Your task to perform on an android device: toggle pop-ups in chrome Image 0: 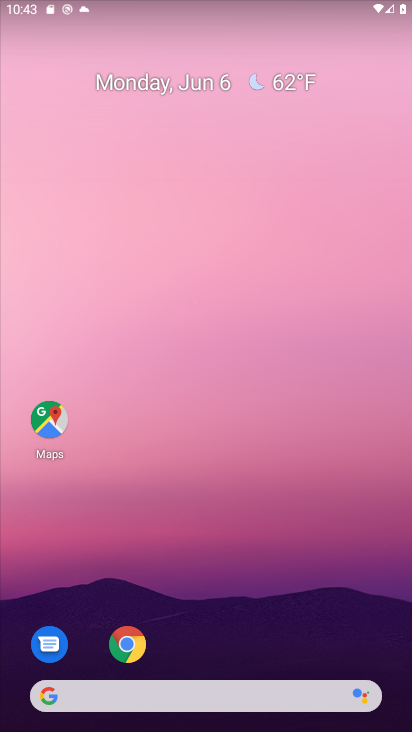
Step 0: click (130, 650)
Your task to perform on an android device: toggle pop-ups in chrome Image 1: 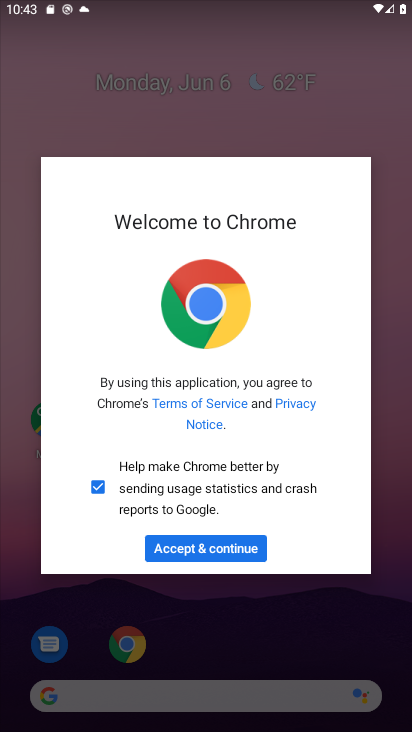
Step 1: click (209, 547)
Your task to perform on an android device: toggle pop-ups in chrome Image 2: 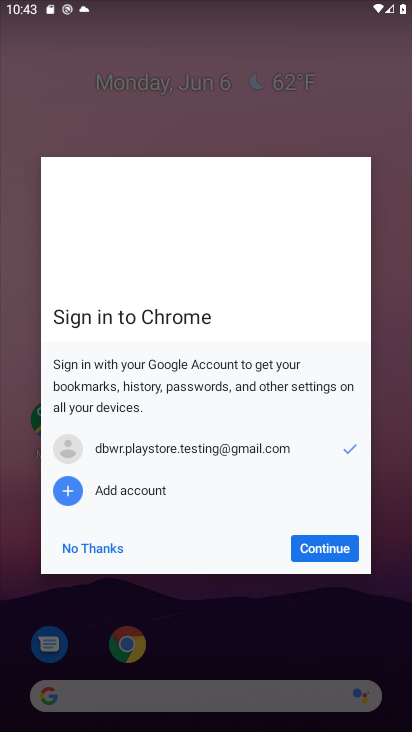
Step 2: click (312, 551)
Your task to perform on an android device: toggle pop-ups in chrome Image 3: 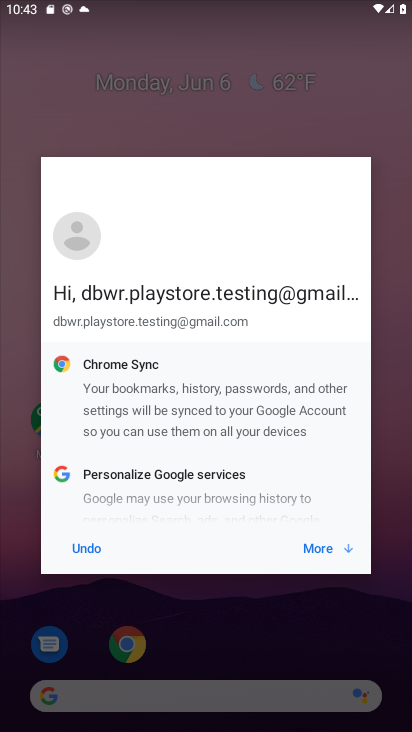
Step 3: click (312, 551)
Your task to perform on an android device: toggle pop-ups in chrome Image 4: 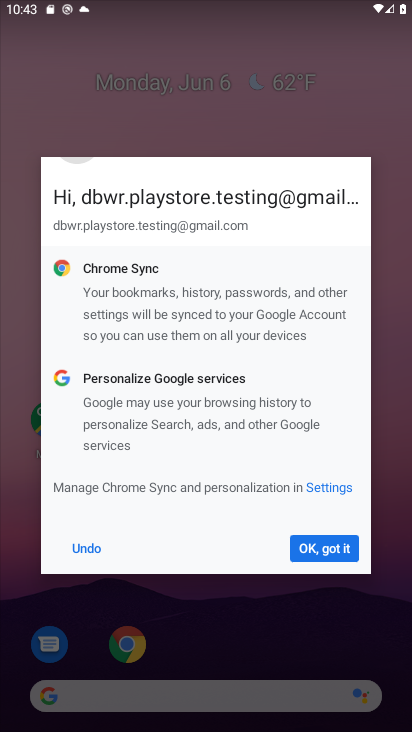
Step 4: click (311, 552)
Your task to perform on an android device: toggle pop-ups in chrome Image 5: 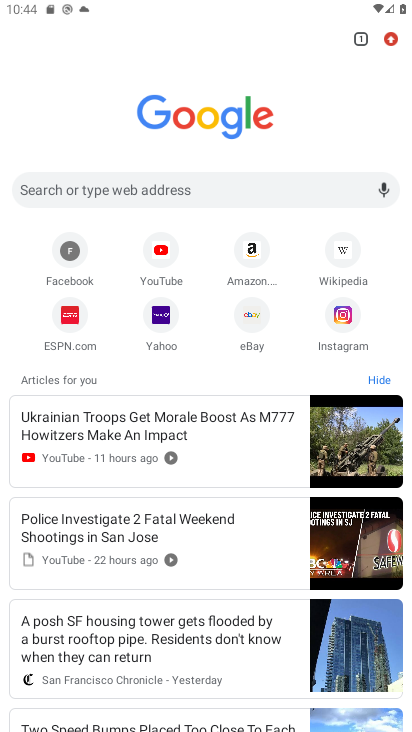
Step 5: click (395, 34)
Your task to perform on an android device: toggle pop-ups in chrome Image 6: 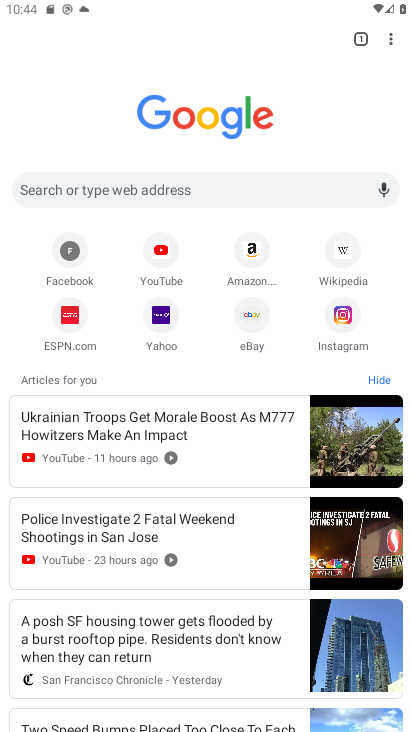
Step 6: click (391, 30)
Your task to perform on an android device: toggle pop-ups in chrome Image 7: 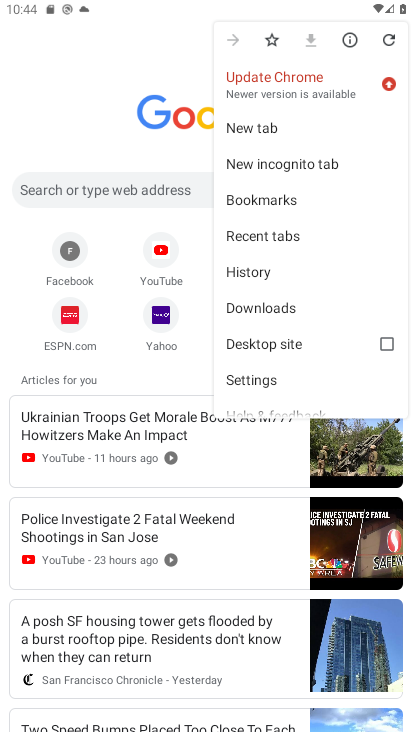
Step 7: click (271, 379)
Your task to perform on an android device: toggle pop-ups in chrome Image 8: 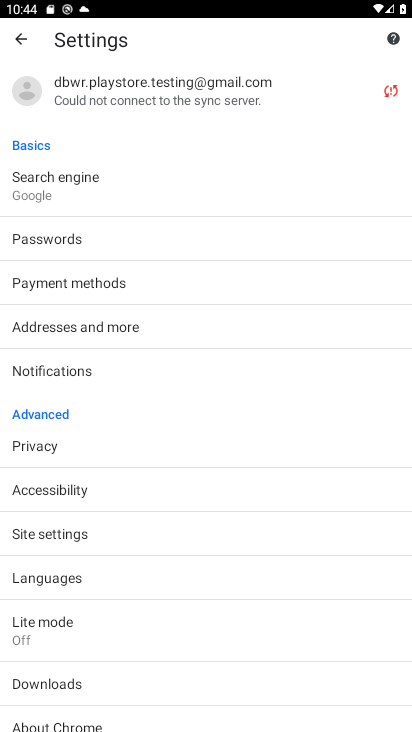
Step 8: click (82, 531)
Your task to perform on an android device: toggle pop-ups in chrome Image 9: 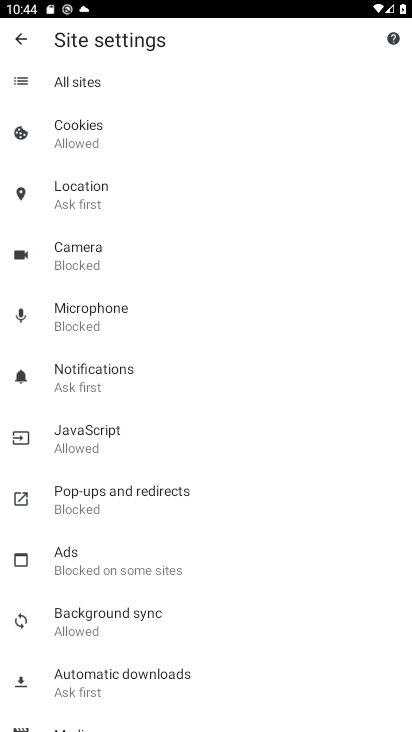
Step 9: click (114, 488)
Your task to perform on an android device: toggle pop-ups in chrome Image 10: 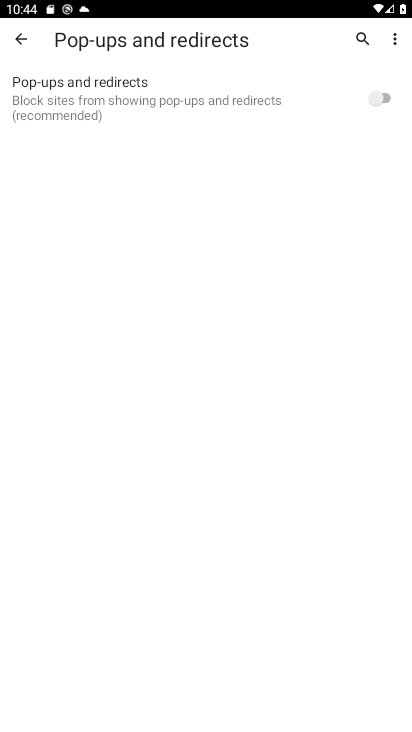
Step 10: click (386, 90)
Your task to perform on an android device: toggle pop-ups in chrome Image 11: 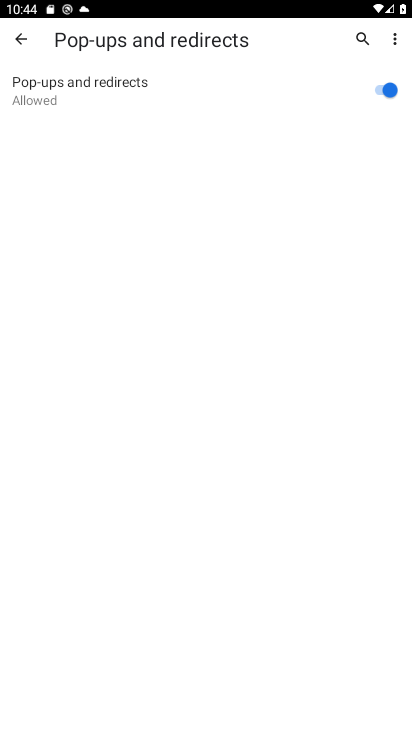
Step 11: task complete